Your task to perform on an android device: change text size in settings app Image 0: 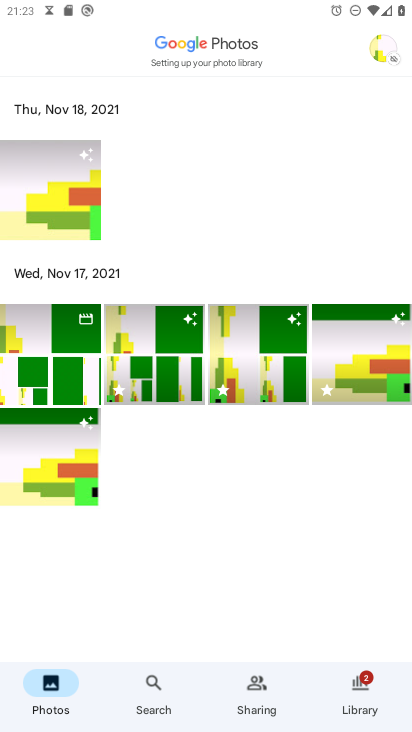
Step 0: press home button
Your task to perform on an android device: change text size in settings app Image 1: 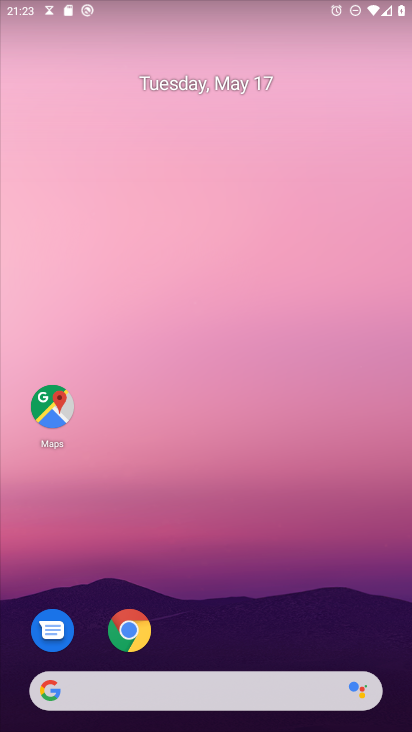
Step 1: drag from (206, 624) to (260, 161)
Your task to perform on an android device: change text size in settings app Image 2: 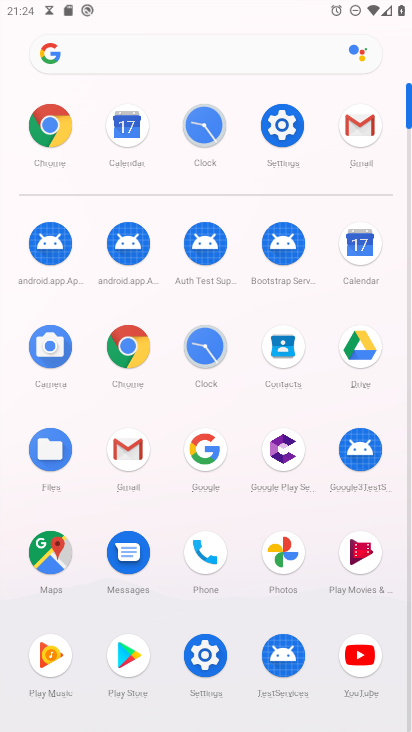
Step 2: click (286, 126)
Your task to perform on an android device: change text size in settings app Image 3: 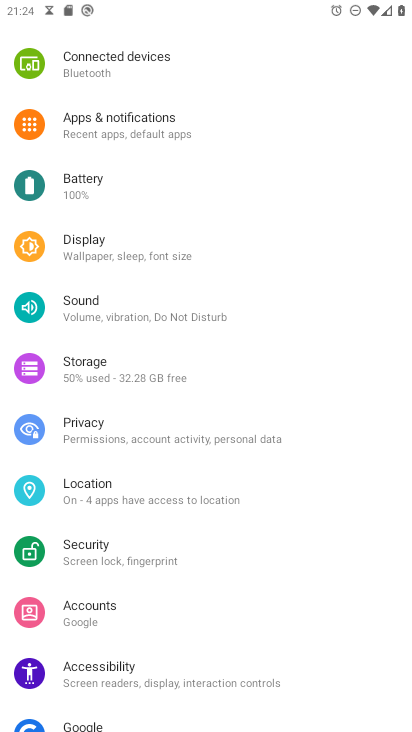
Step 3: click (151, 250)
Your task to perform on an android device: change text size in settings app Image 4: 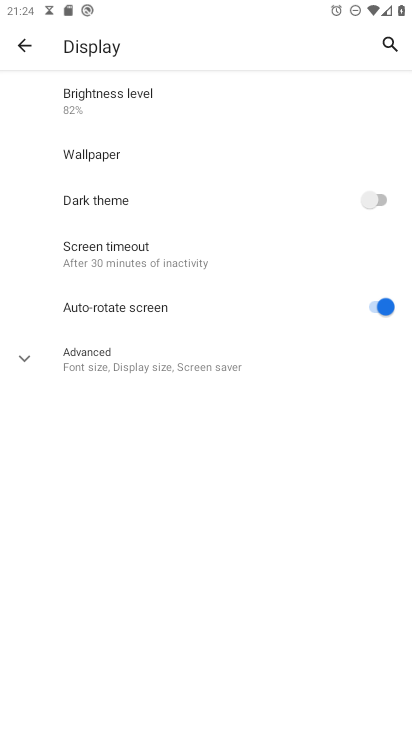
Step 4: click (126, 362)
Your task to perform on an android device: change text size in settings app Image 5: 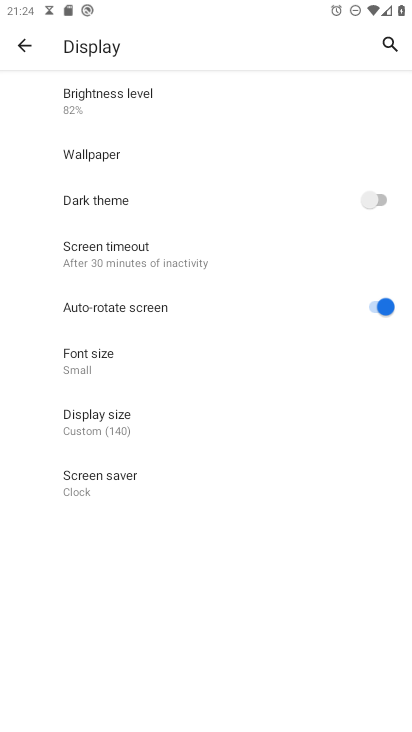
Step 5: click (126, 362)
Your task to perform on an android device: change text size in settings app Image 6: 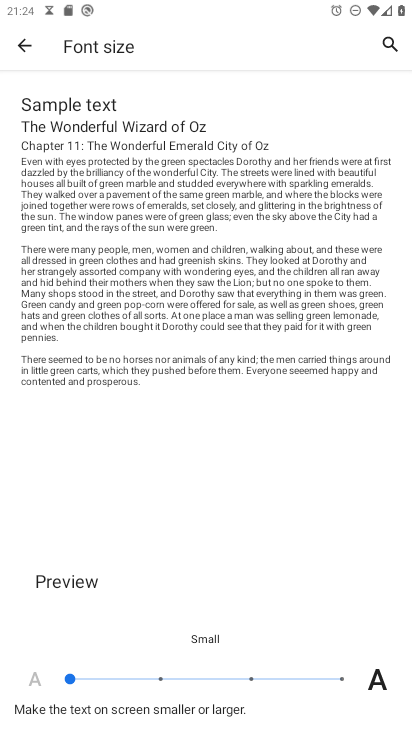
Step 6: click (160, 678)
Your task to perform on an android device: change text size in settings app Image 7: 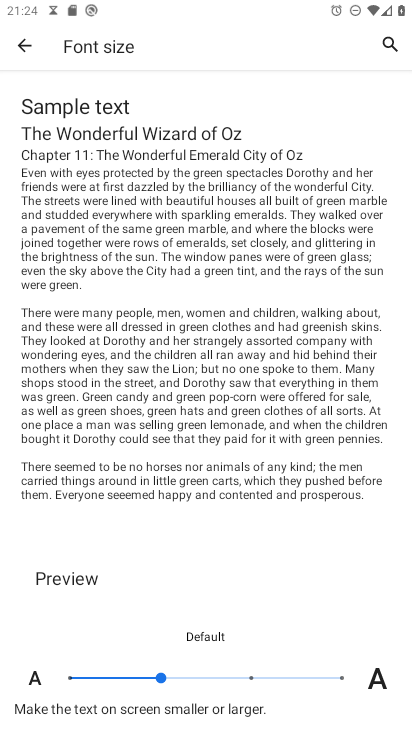
Step 7: task complete